Your task to perform on an android device: turn on airplane mode Image 0: 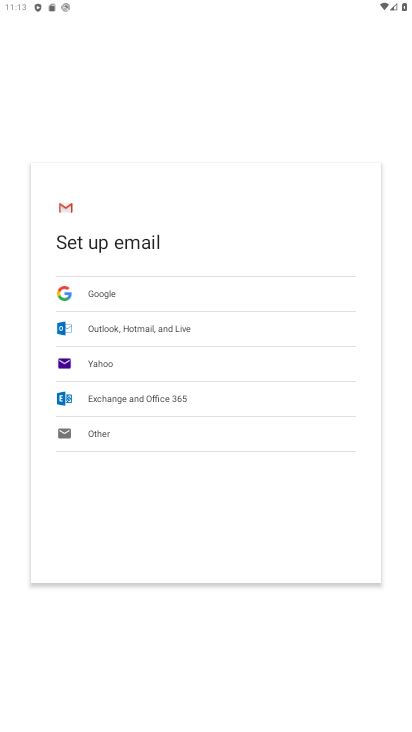
Step 0: drag from (384, 10) to (389, 224)
Your task to perform on an android device: turn on airplane mode Image 1: 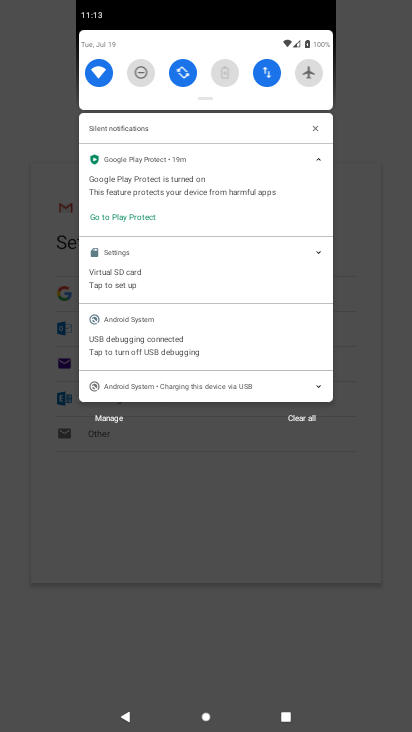
Step 1: click (310, 76)
Your task to perform on an android device: turn on airplane mode Image 2: 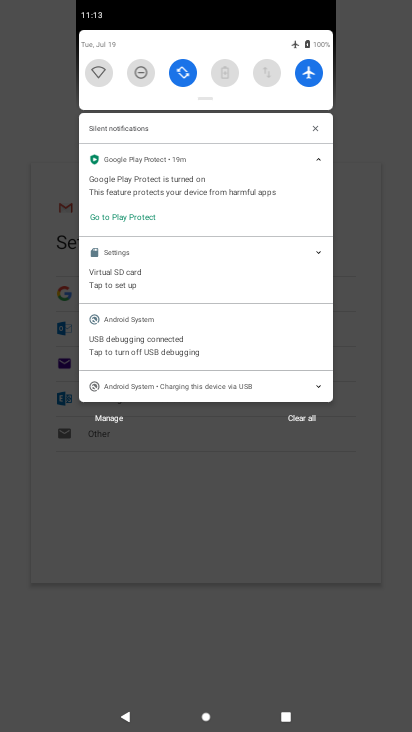
Step 2: task complete